Your task to perform on an android device: turn off airplane mode Image 0: 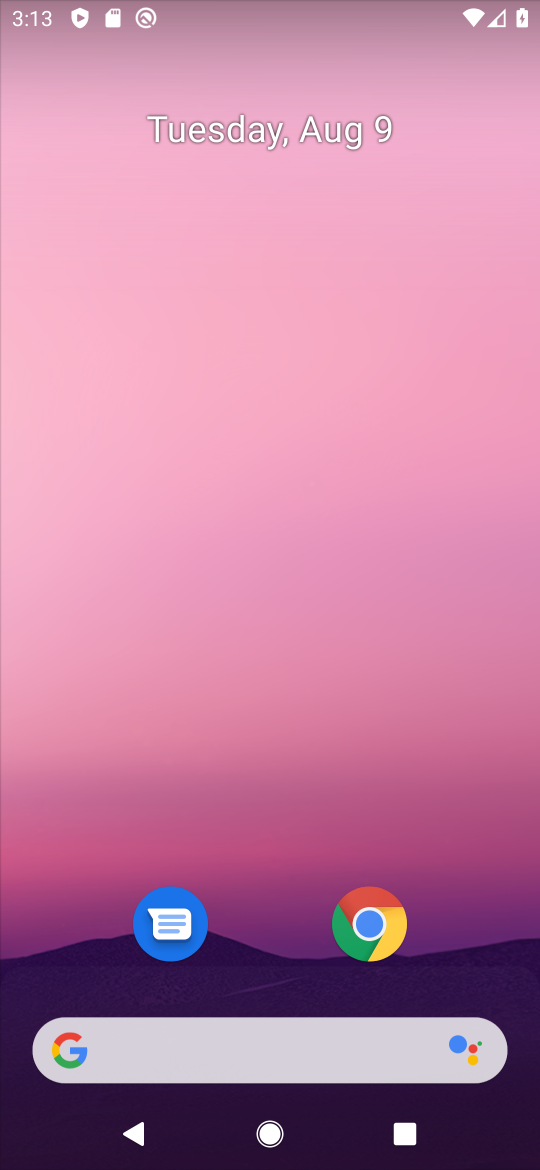
Step 0: drag from (266, 873) to (416, 150)
Your task to perform on an android device: turn off airplane mode Image 1: 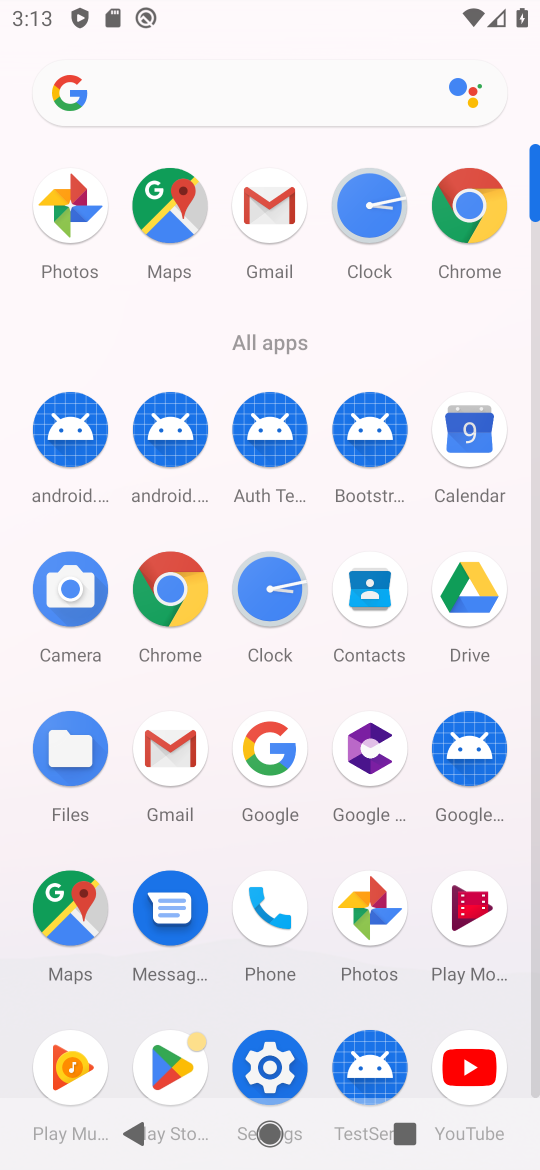
Step 1: click (173, 1067)
Your task to perform on an android device: turn off airplane mode Image 2: 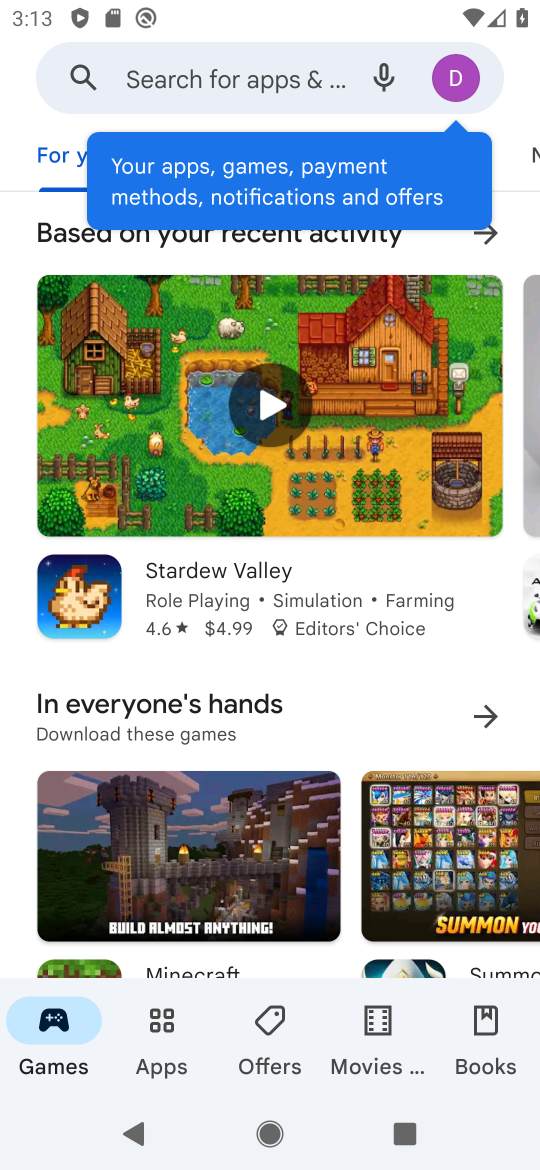
Step 2: press home button
Your task to perform on an android device: turn off airplane mode Image 3: 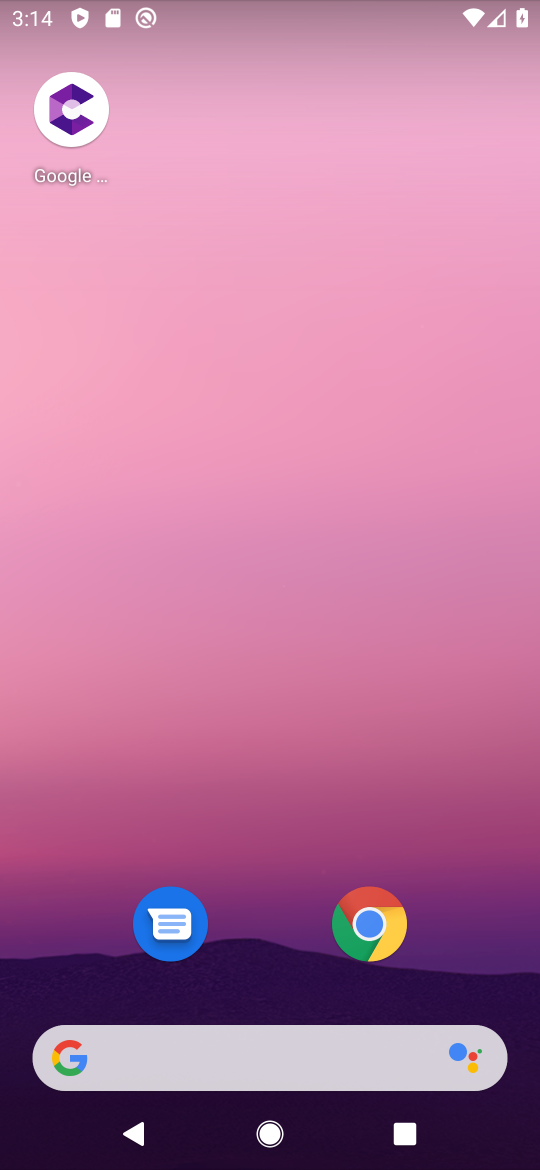
Step 3: drag from (240, 1065) to (343, 227)
Your task to perform on an android device: turn off airplane mode Image 4: 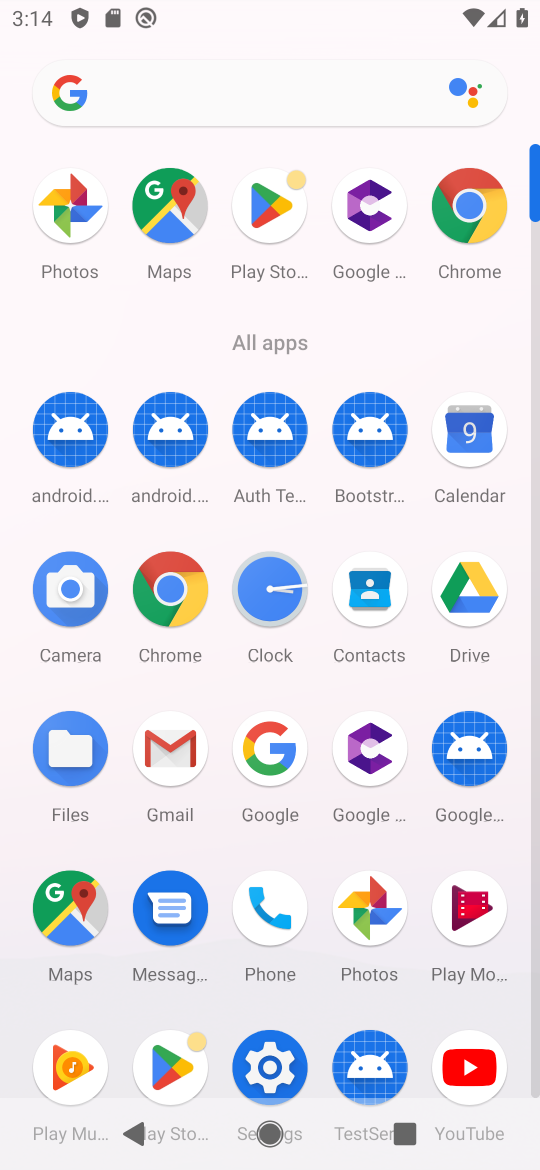
Step 4: click (270, 1069)
Your task to perform on an android device: turn off airplane mode Image 5: 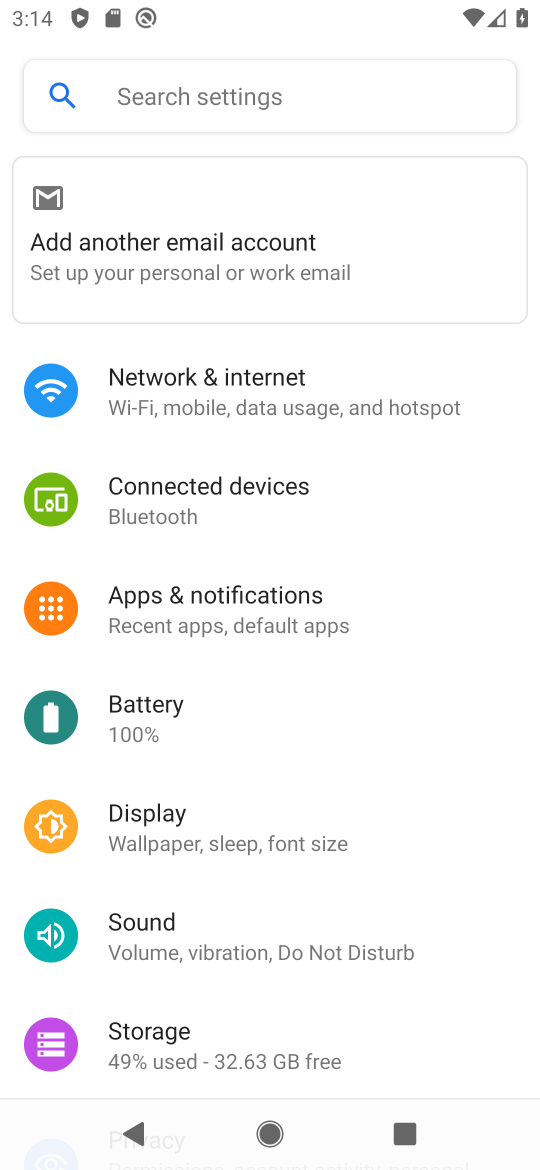
Step 5: click (255, 386)
Your task to perform on an android device: turn off airplane mode Image 6: 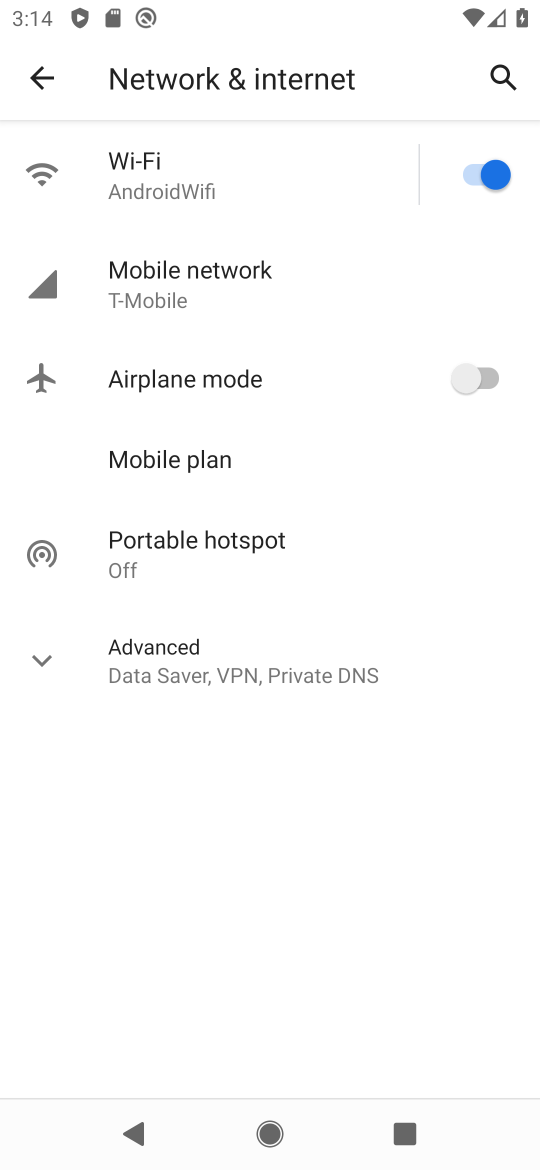
Step 6: task complete